Your task to perform on an android device: empty trash in google photos Image 0: 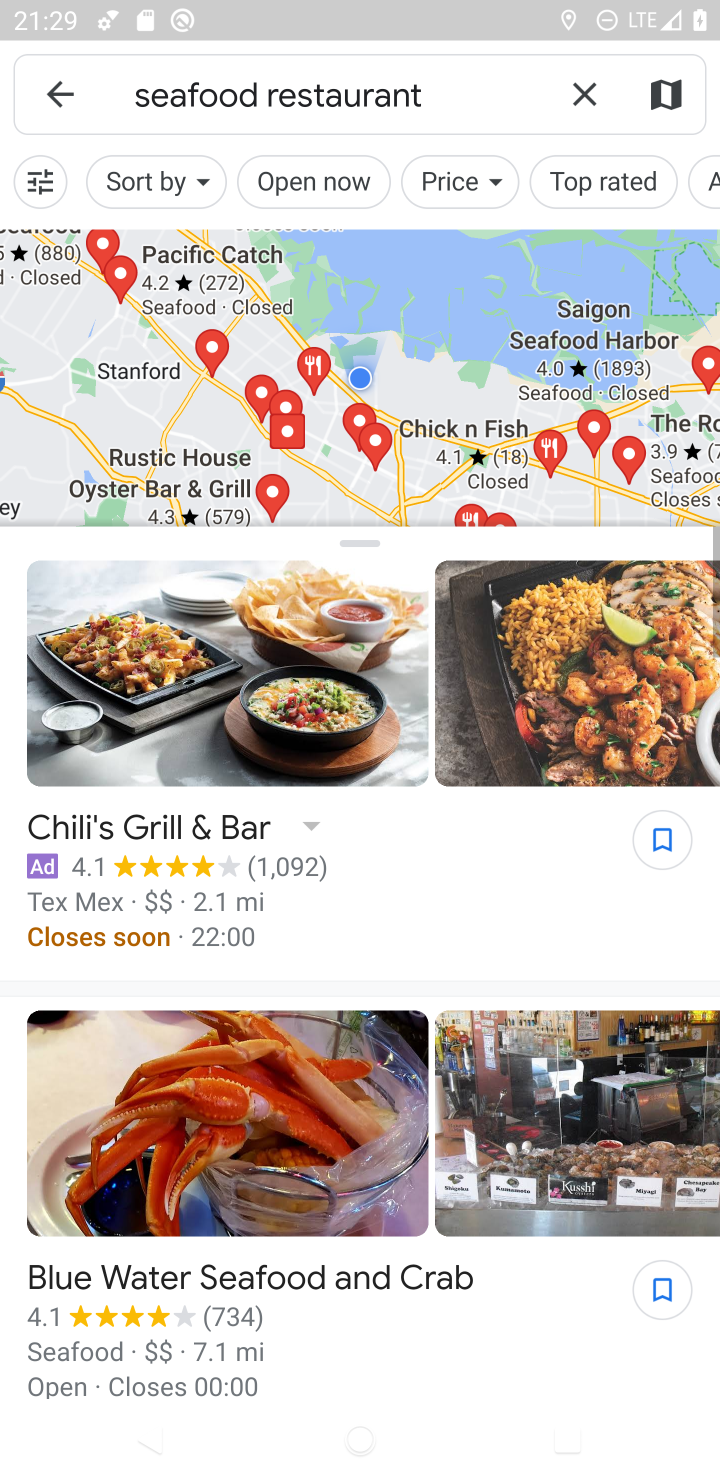
Step 0: press home button
Your task to perform on an android device: empty trash in google photos Image 1: 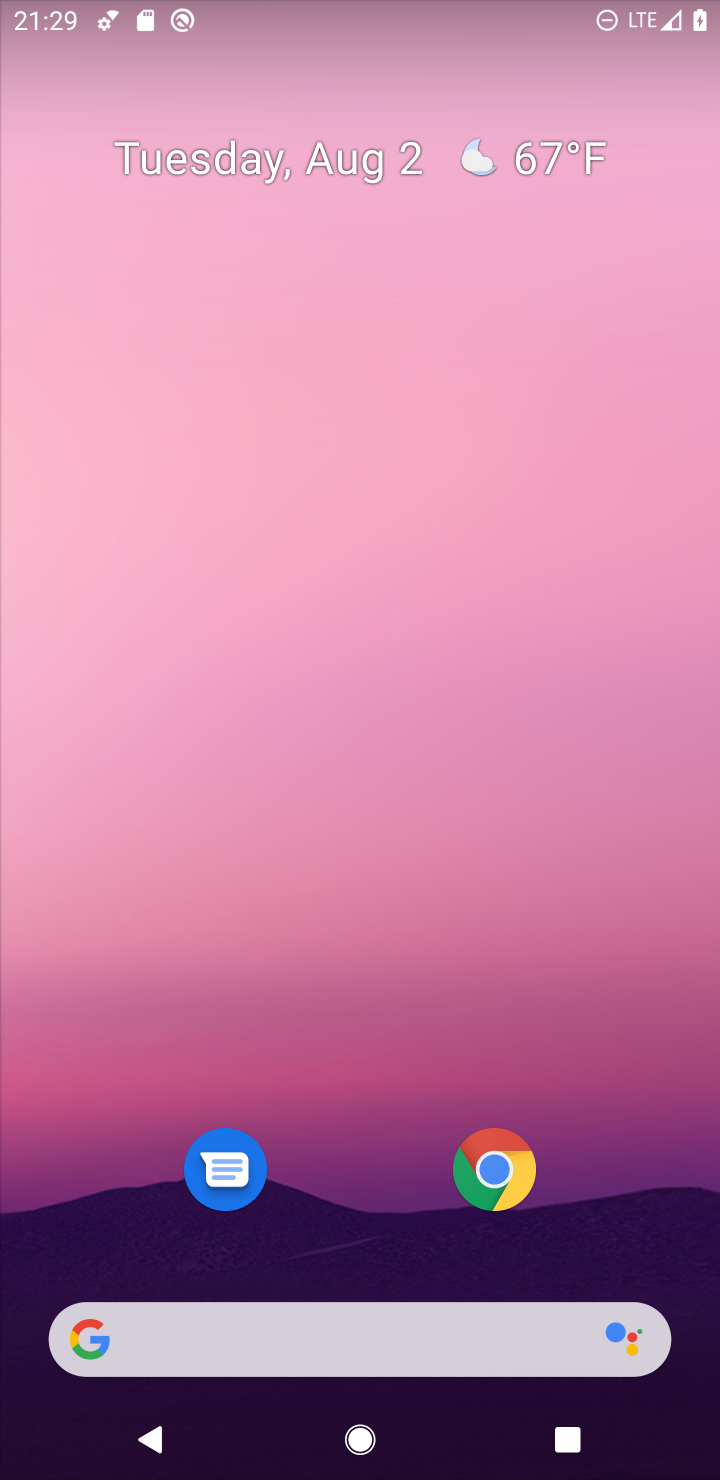
Step 1: drag from (405, 1249) to (444, 107)
Your task to perform on an android device: empty trash in google photos Image 2: 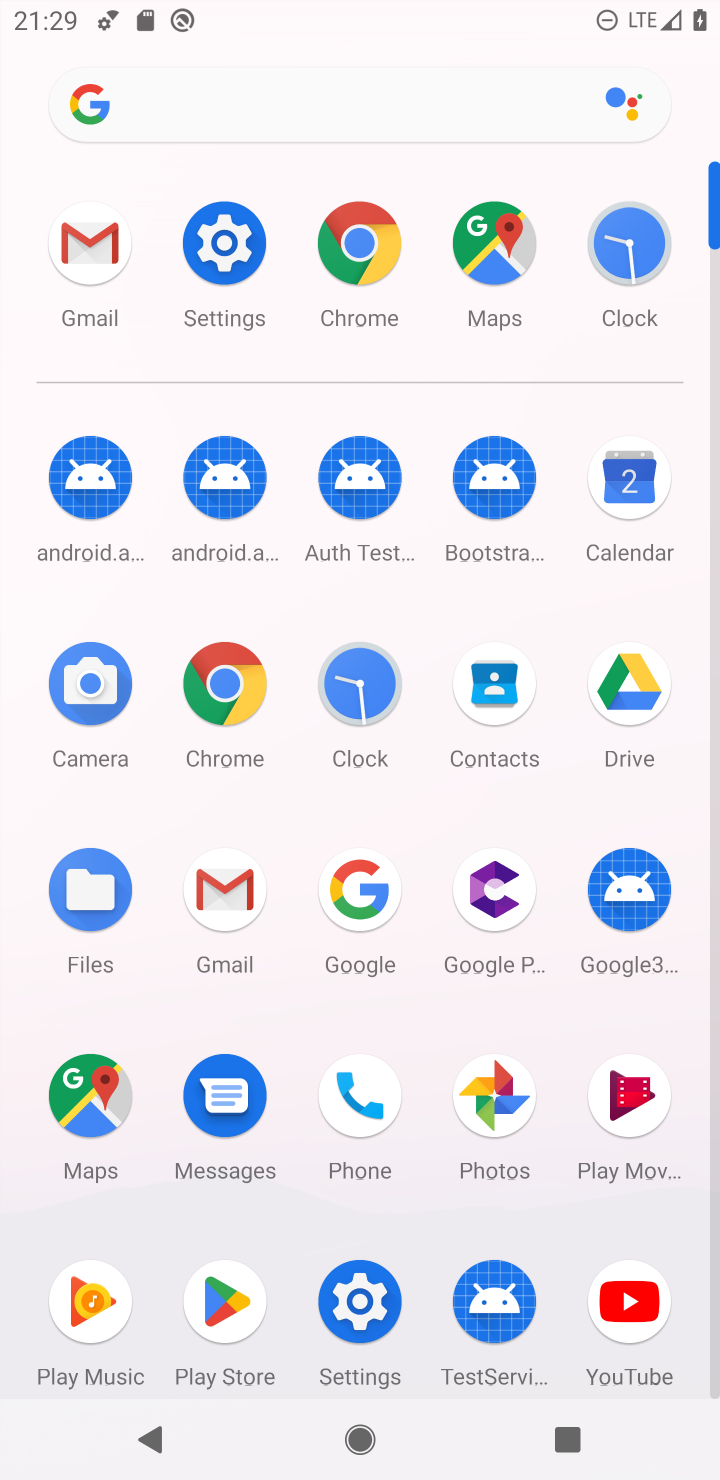
Step 2: click (483, 1095)
Your task to perform on an android device: empty trash in google photos Image 3: 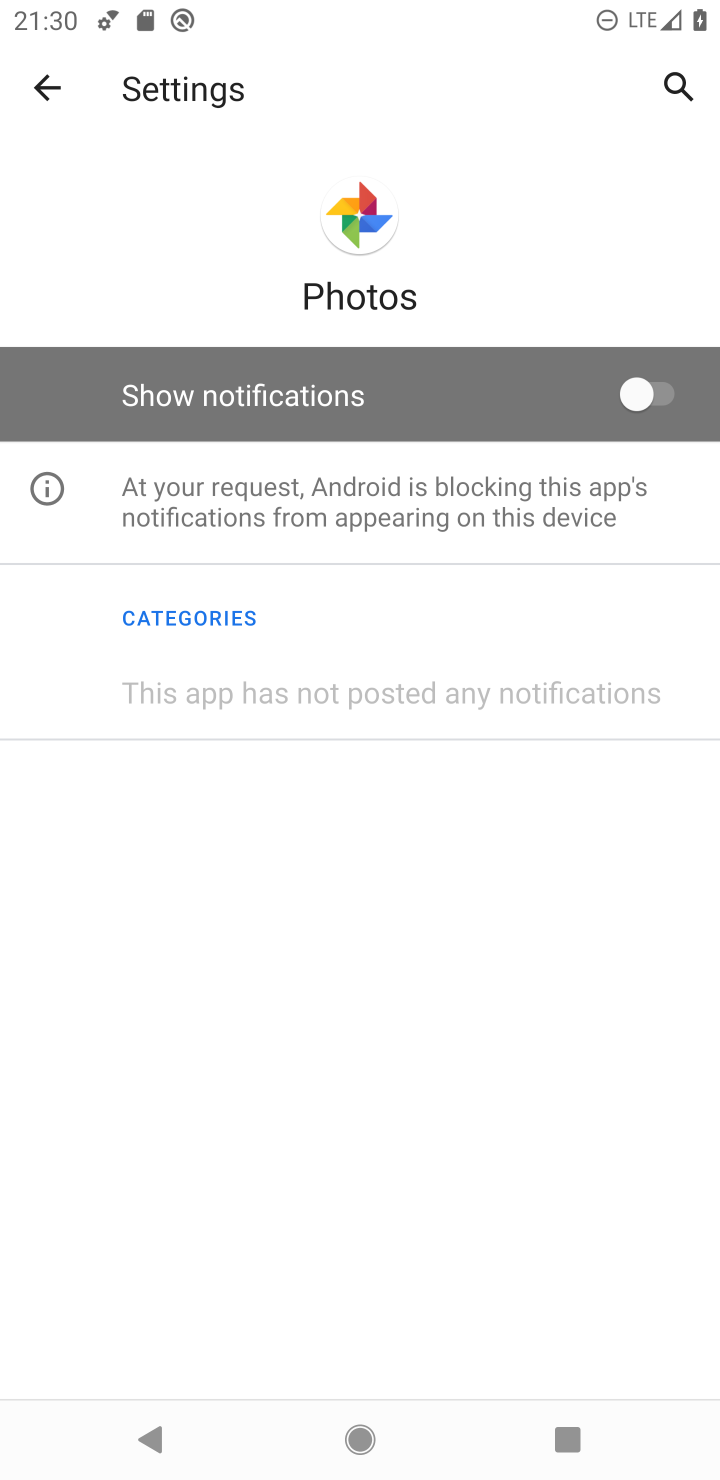
Step 3: click (50, 79)
Your task to perform on an android device: empty trash in google photos Image 4: 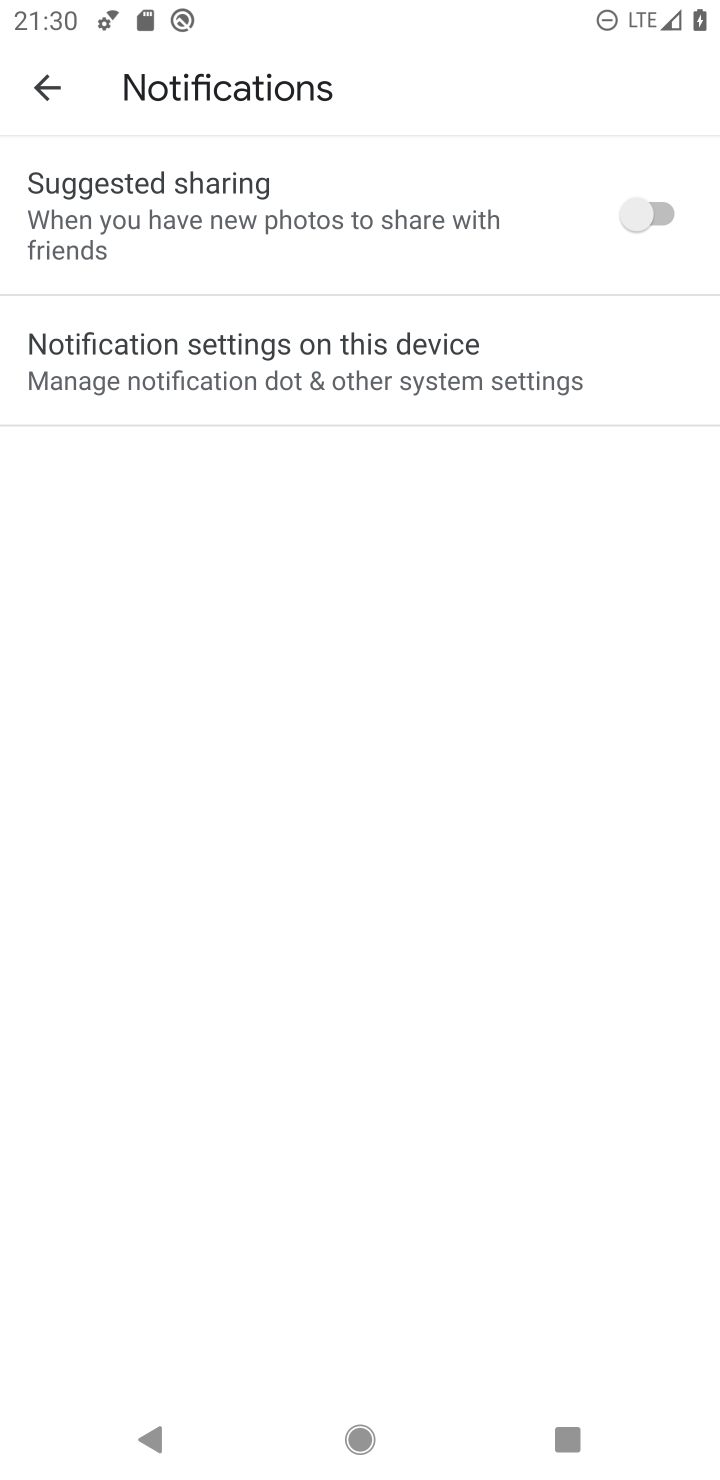
Step 4: click (41, 88)
Your task to perform on an android device: empty trash in google photos Image 5: 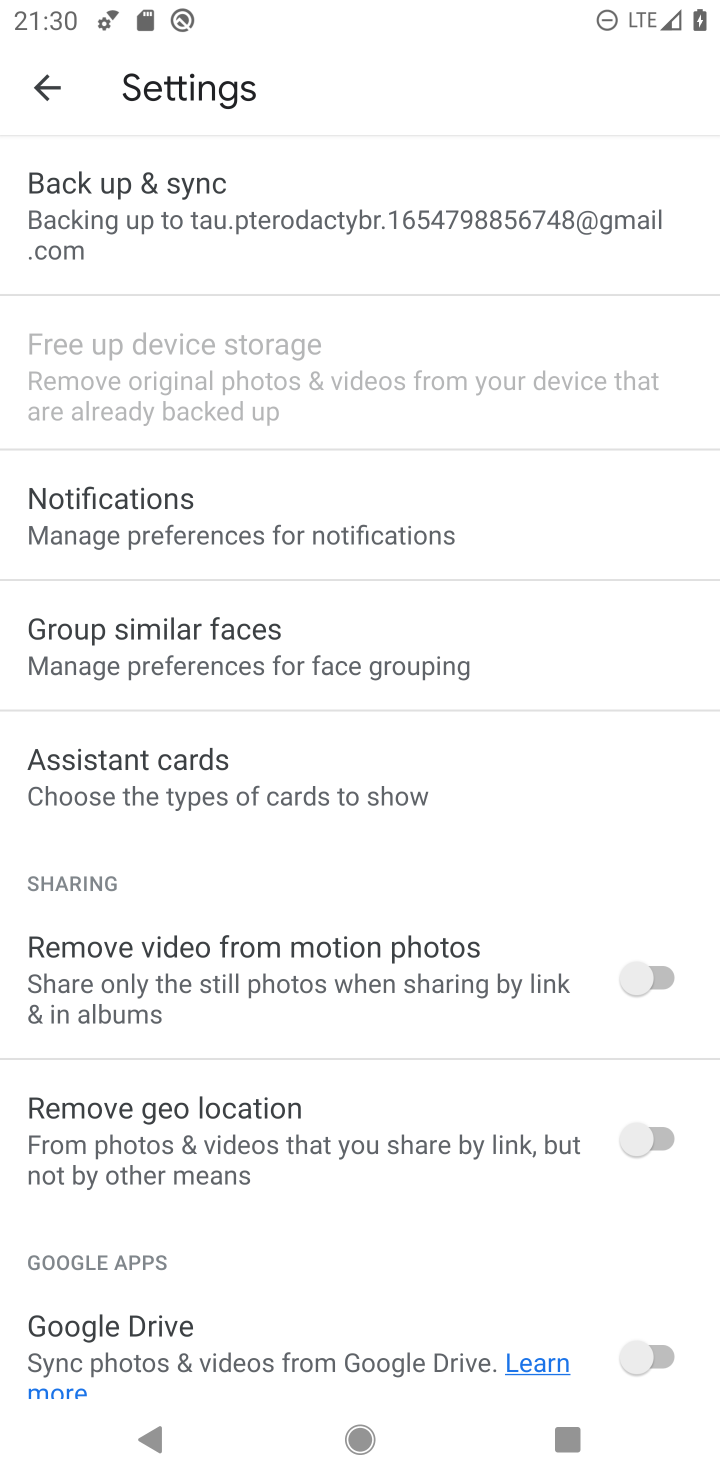
Step 5: click (34, 83)
Your task to perform on an android device: empty trash in google photos Image 6: 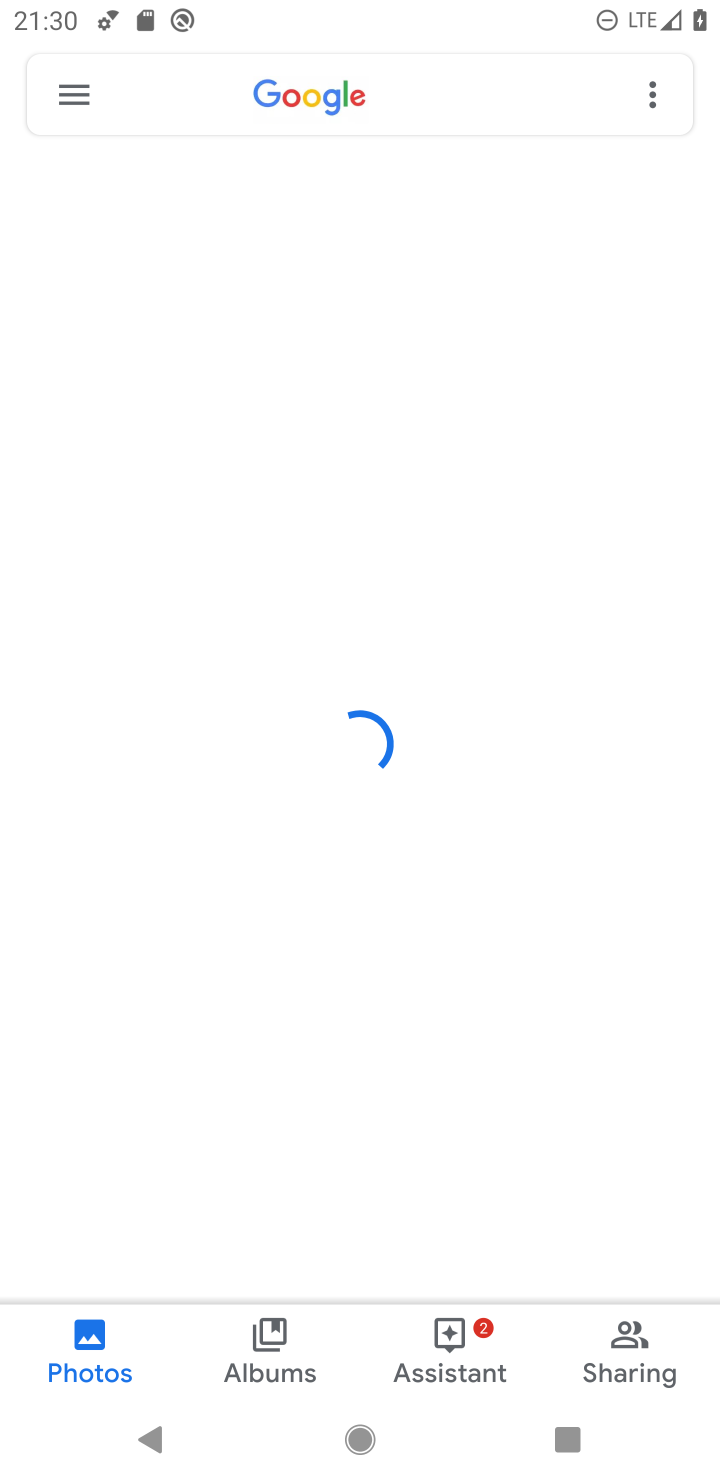
Step 6: click (76, 92)
Your task to perform on an android device: empty trash in google photos Image 7: 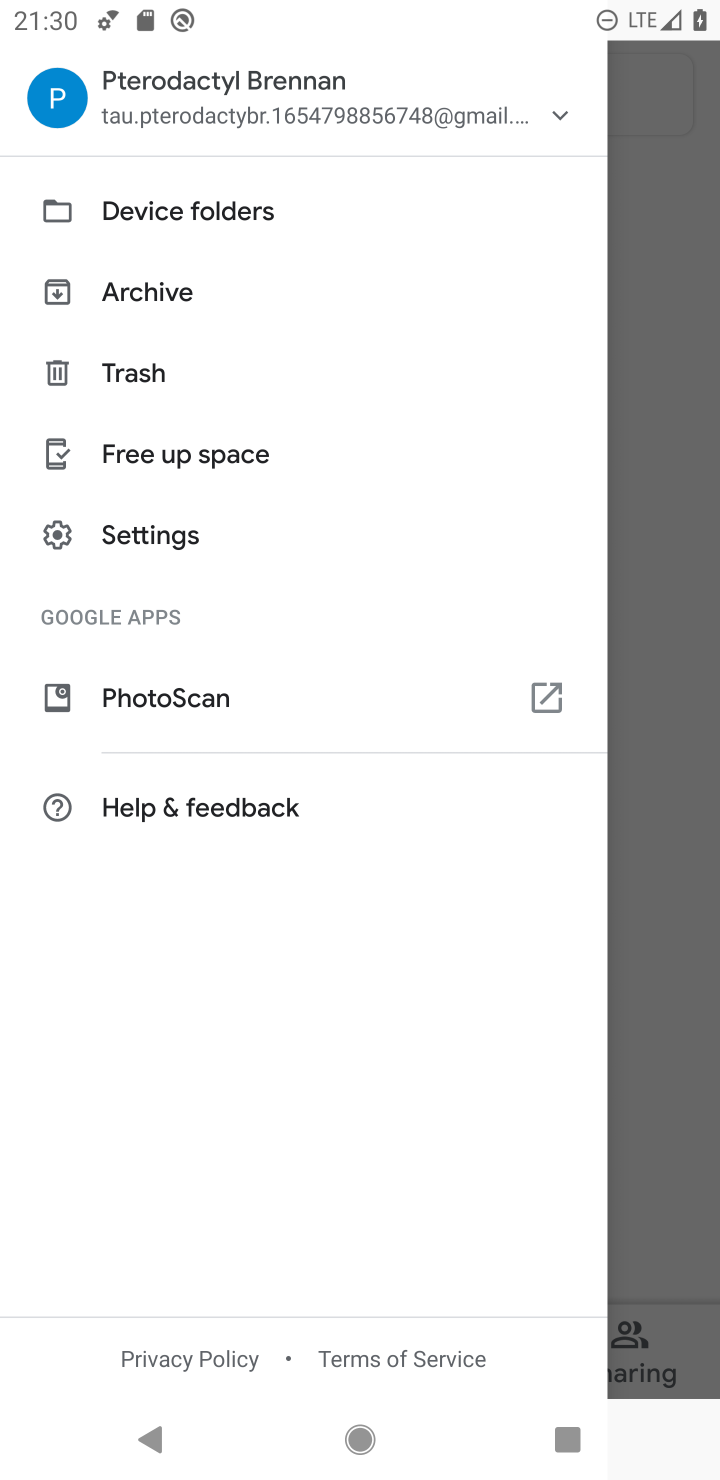
Step 7: click (130, 367)
Your task to perform on an android device: empty trash in google photos Image 8: 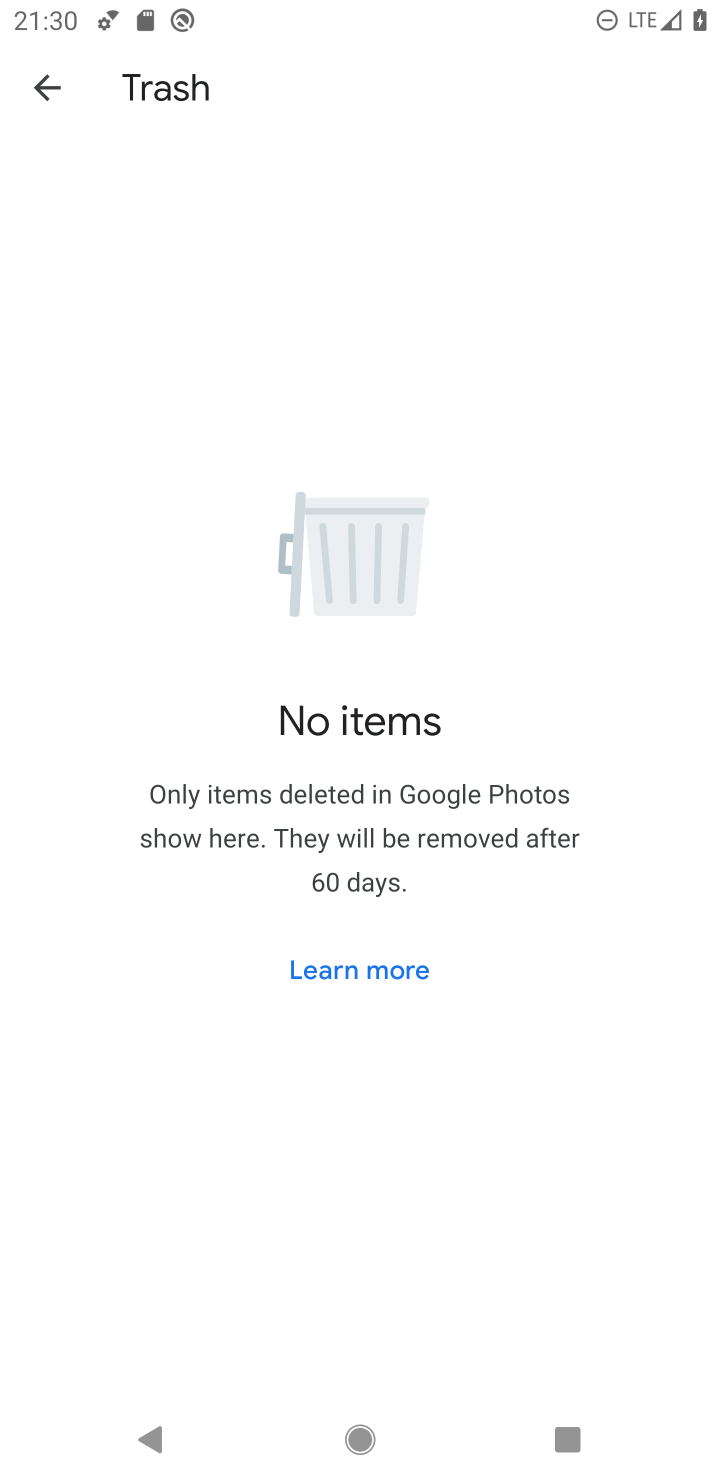
Step 8: task complete